Your task to perform on an android device: visit the assistant section in the google photos Image 0: 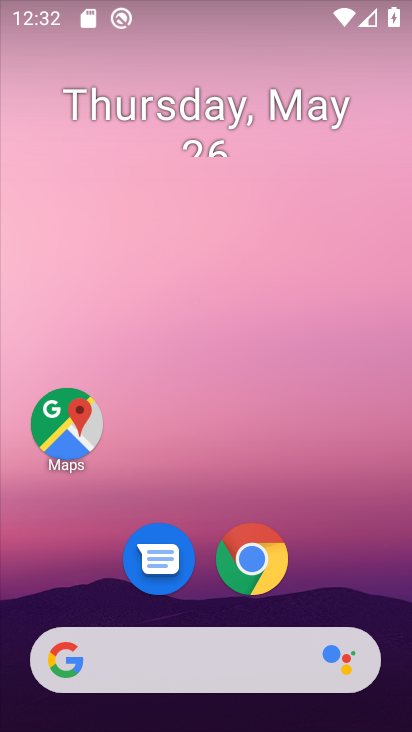
Step 0: press home button
Your task to perform on an android device: visit the assistant section in the google photos Image 1: 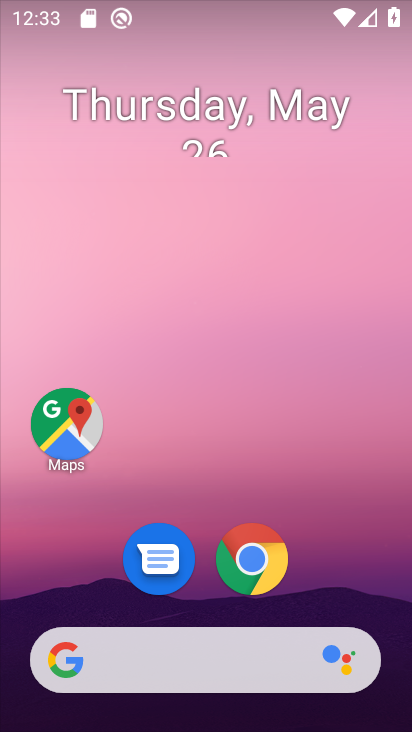
Step 1: drag from (302, 595) to (259, 211)
Your task to perform on an android device: visit the assistant section in the google photos Image 2: 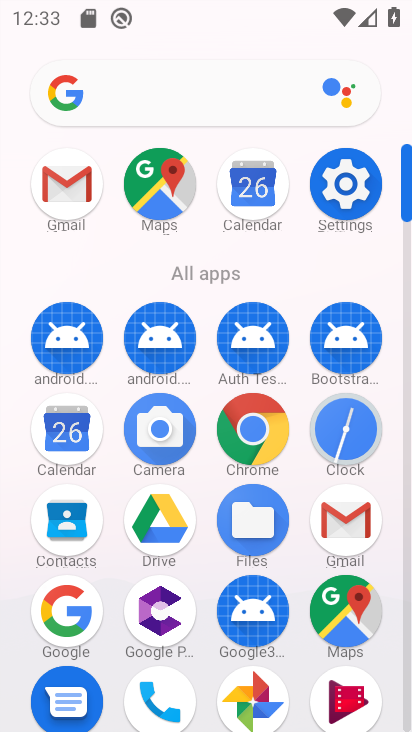
Step 2: click (253, 691)
Your task to perform on an android device: visit the assistant section in the google photos Image 3: 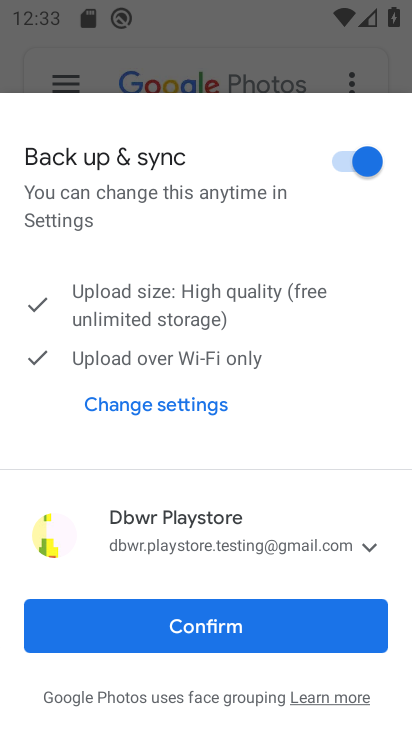
Step 3: click (142, 619)
Your task to perform on an android device: visit the assistant section in the google photos Image 4: 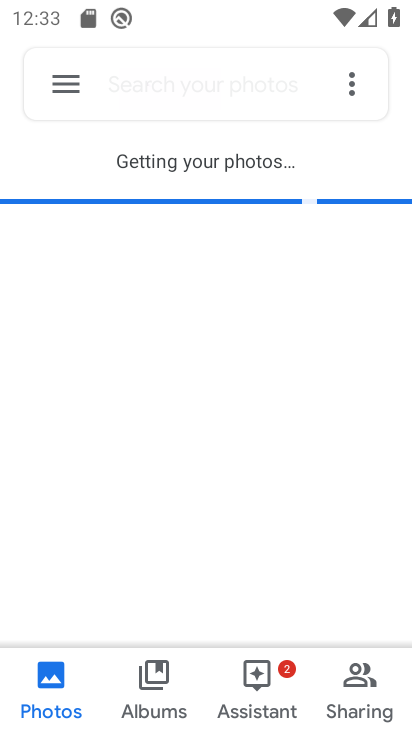
Step 4: click (253, 676)
Your task to perform on an android device: visit the assistant section in the google photos Image 5: 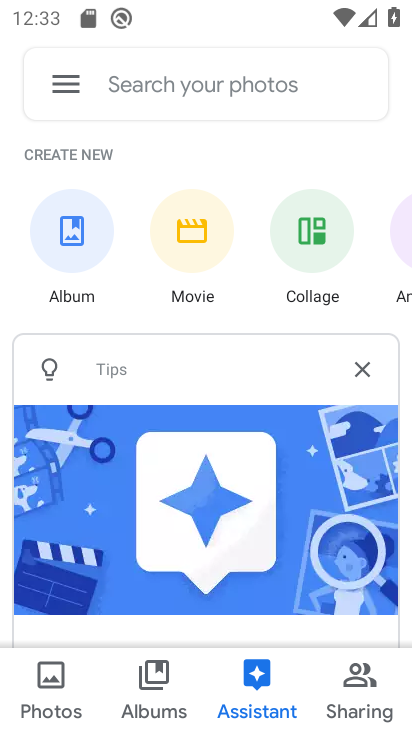
Step 5: task complete